Your task to perform on an android device: Open the web browser Image 0: 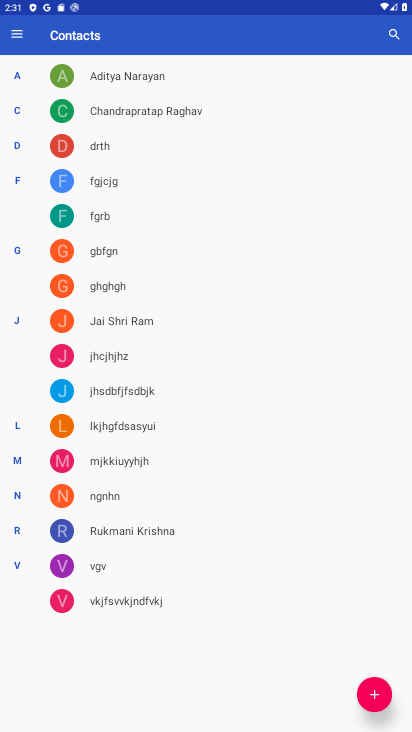
Step 0: press home button
Your task to perform on an android device: Open the web browser Image 1: 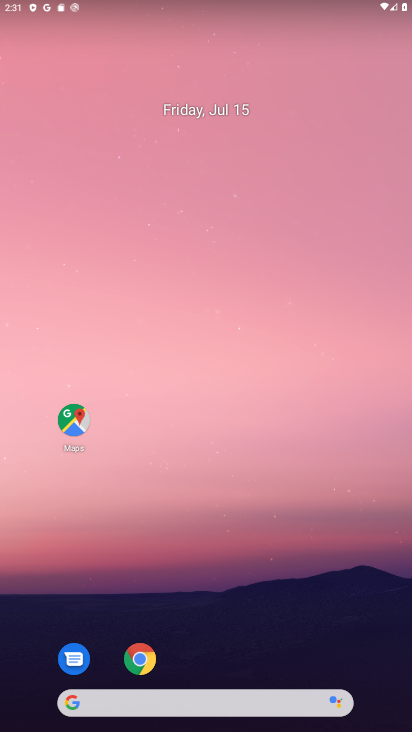
Step 1: drag from (241, 679) to (299, 204)
Your task to perform on an android device: Open the web browser Image 2: 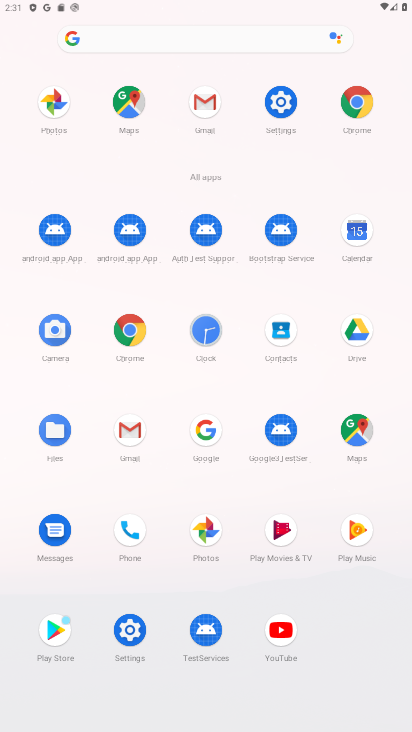
Step 2: click (201, 430)
Your task to perform on an android device: Open the web browser Image 3: 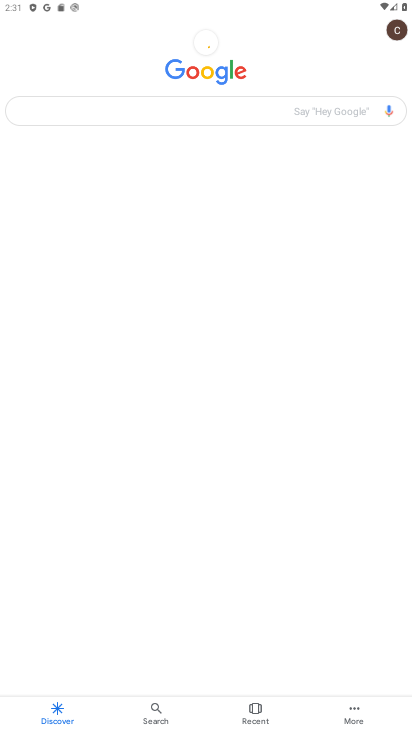
Step 3: task complete